Your task to perform on an android device: Show the shopping cart on bestbuy.com. Image 0: 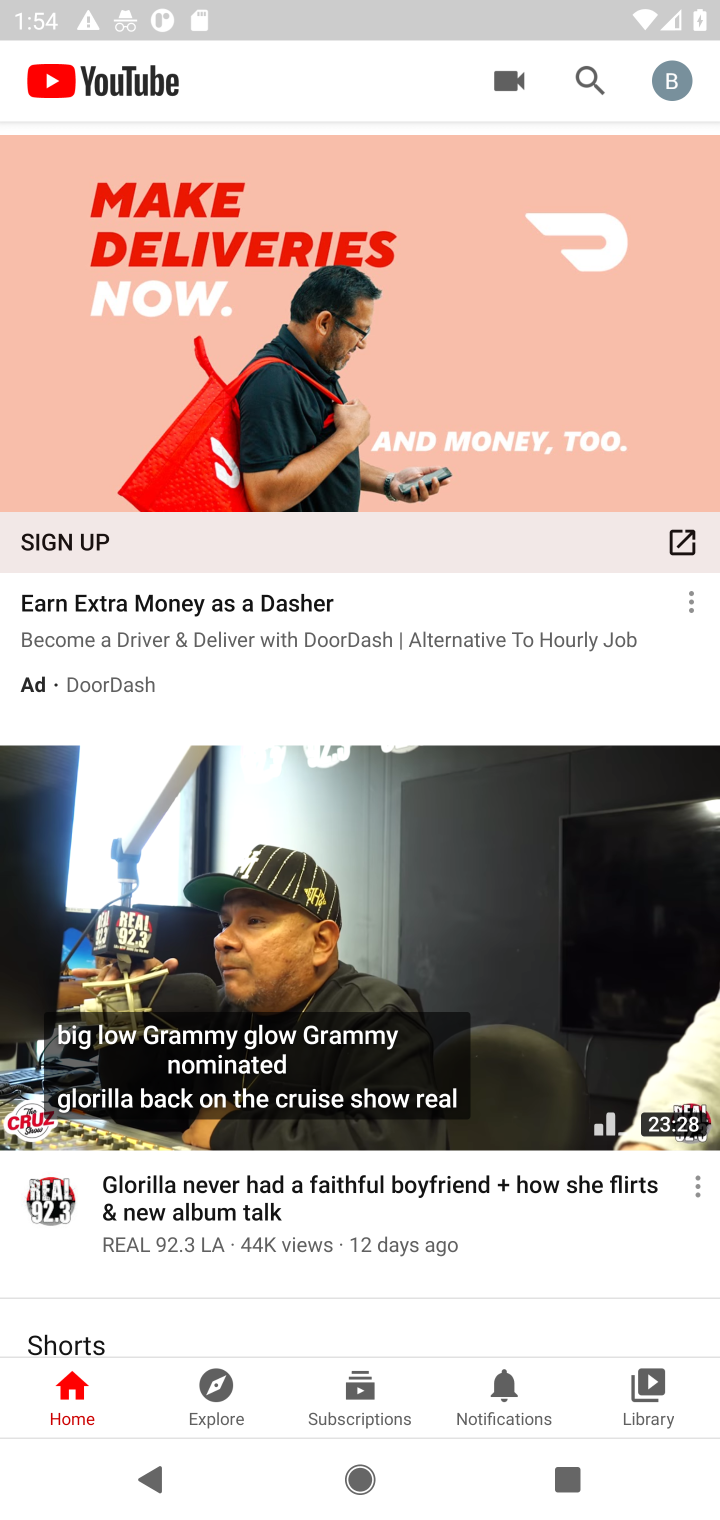
Step 0: press home button
Your task to perform on an android device: Show the shopping cart on bestbuy.com. Image 1: 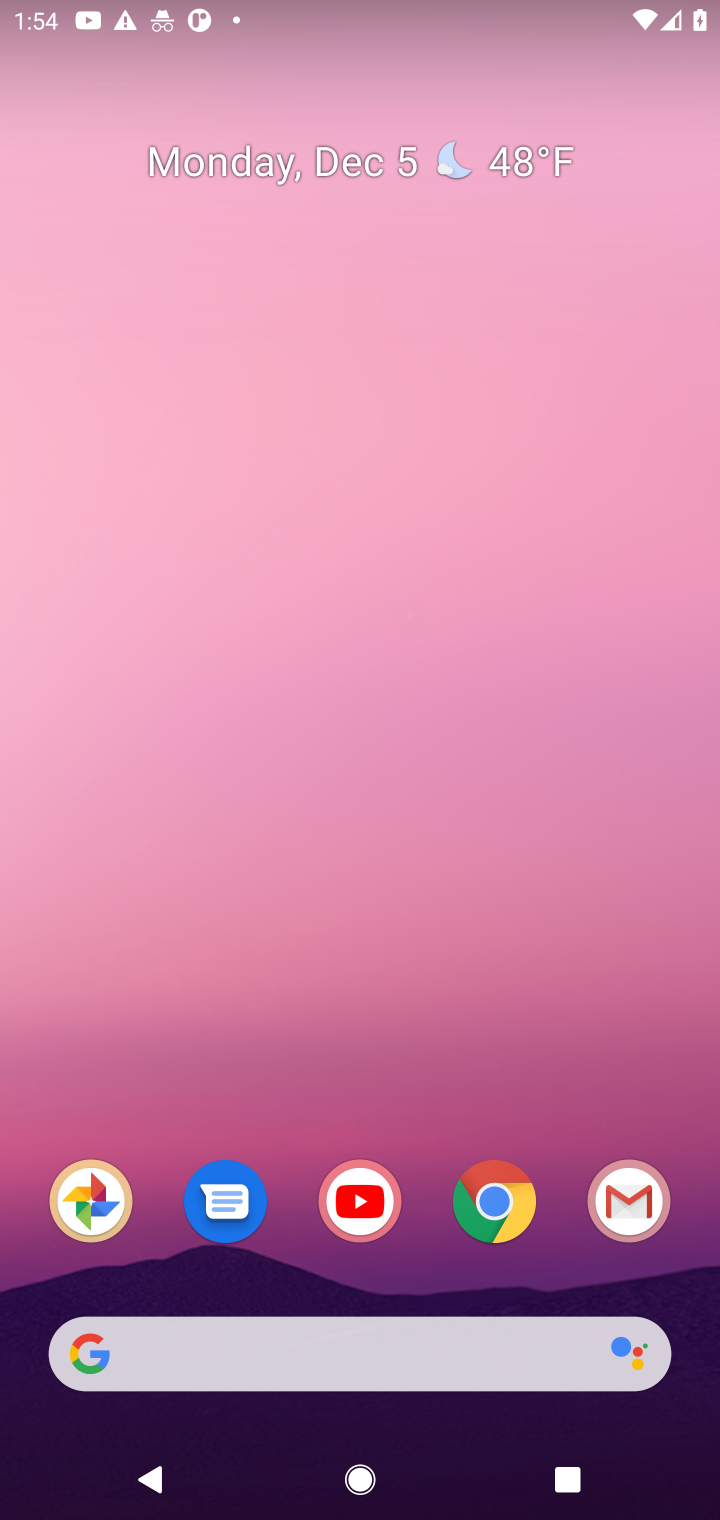
Step 1: click (497, 1194)
Your task to perform on an android device: Show the shopping cart on bestbuy.com. Image 2: 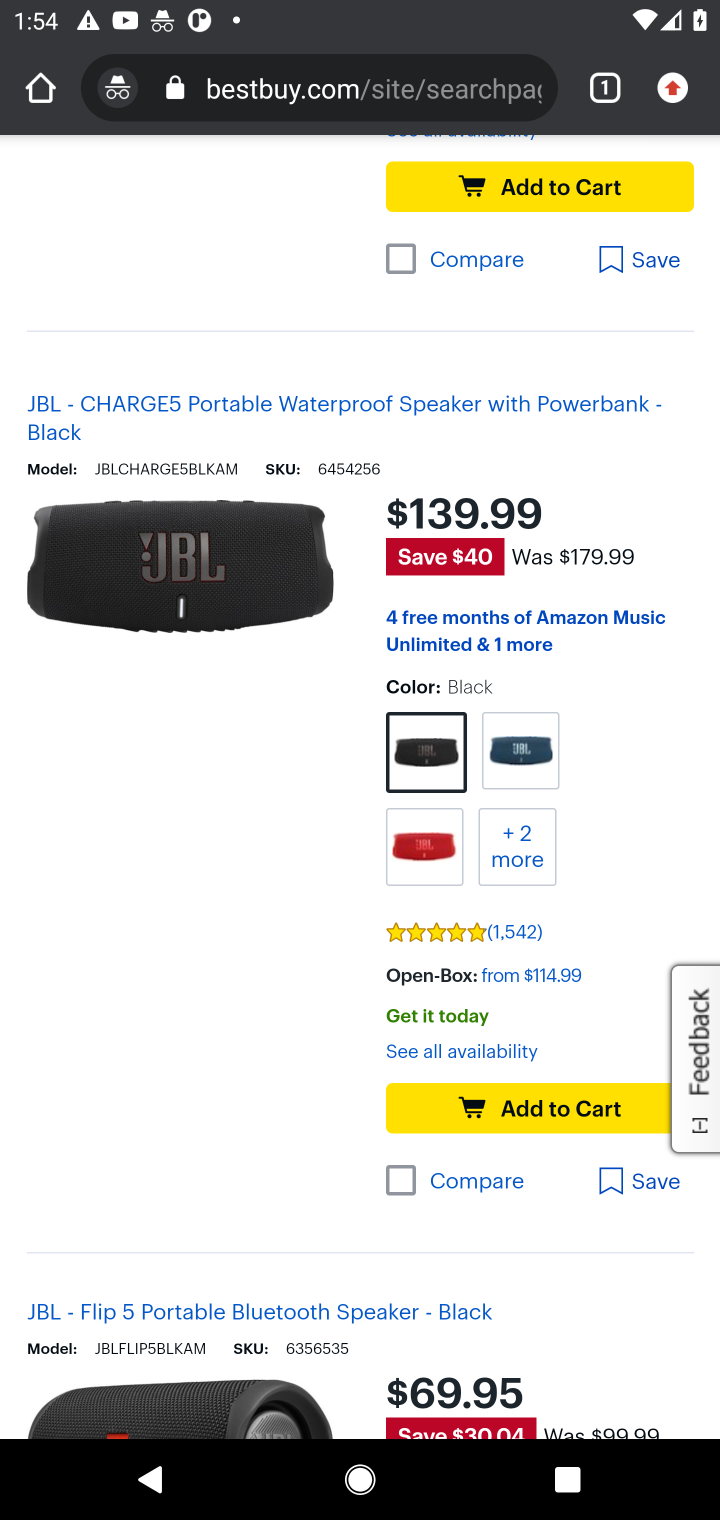
Step 2: drag from (161, 779) to (163, 1091)
Your task to perform on an android device: Show the shopping cart on bestbuy.com. Image 3: 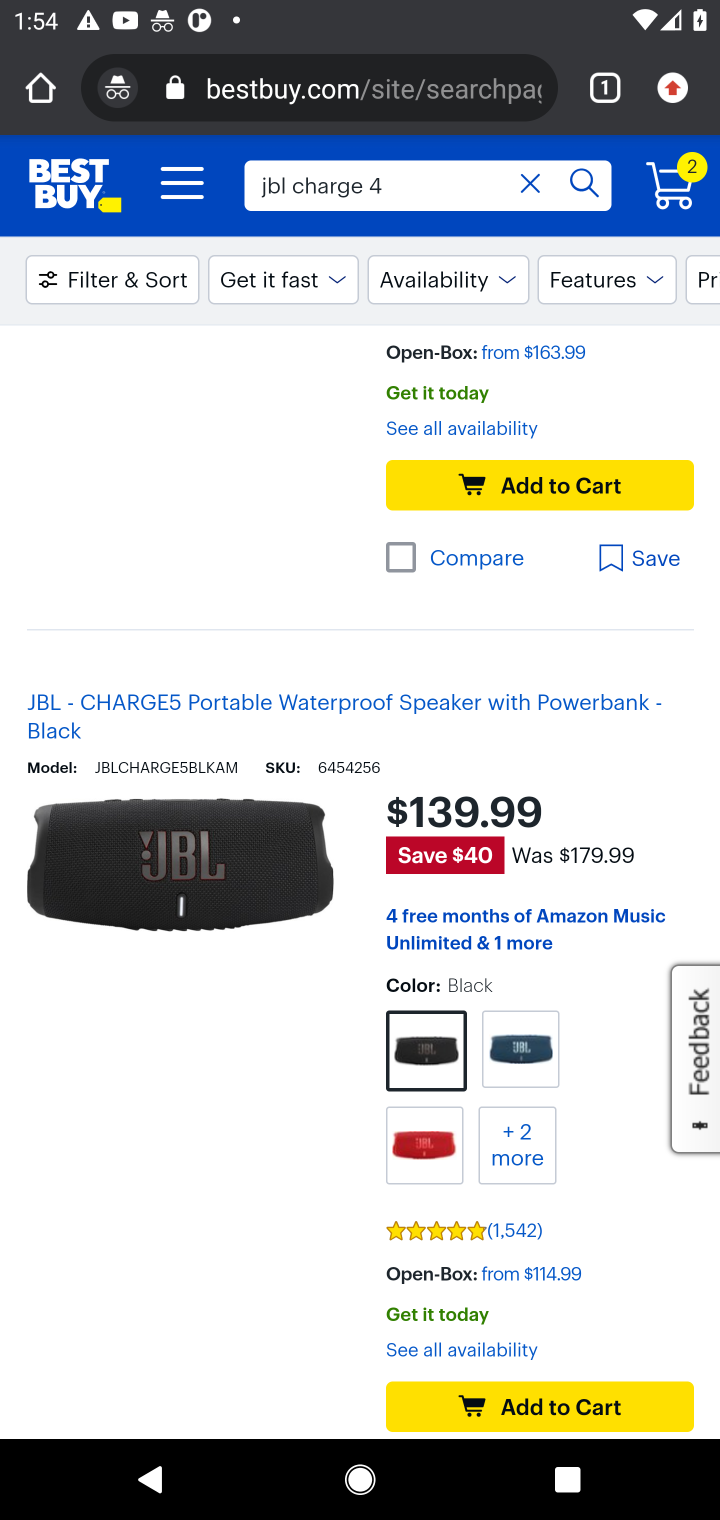
Step 3: click (707, 183)
Your task to perform on an android device: Show the shopping cart on bestbuy.com. Image 4: 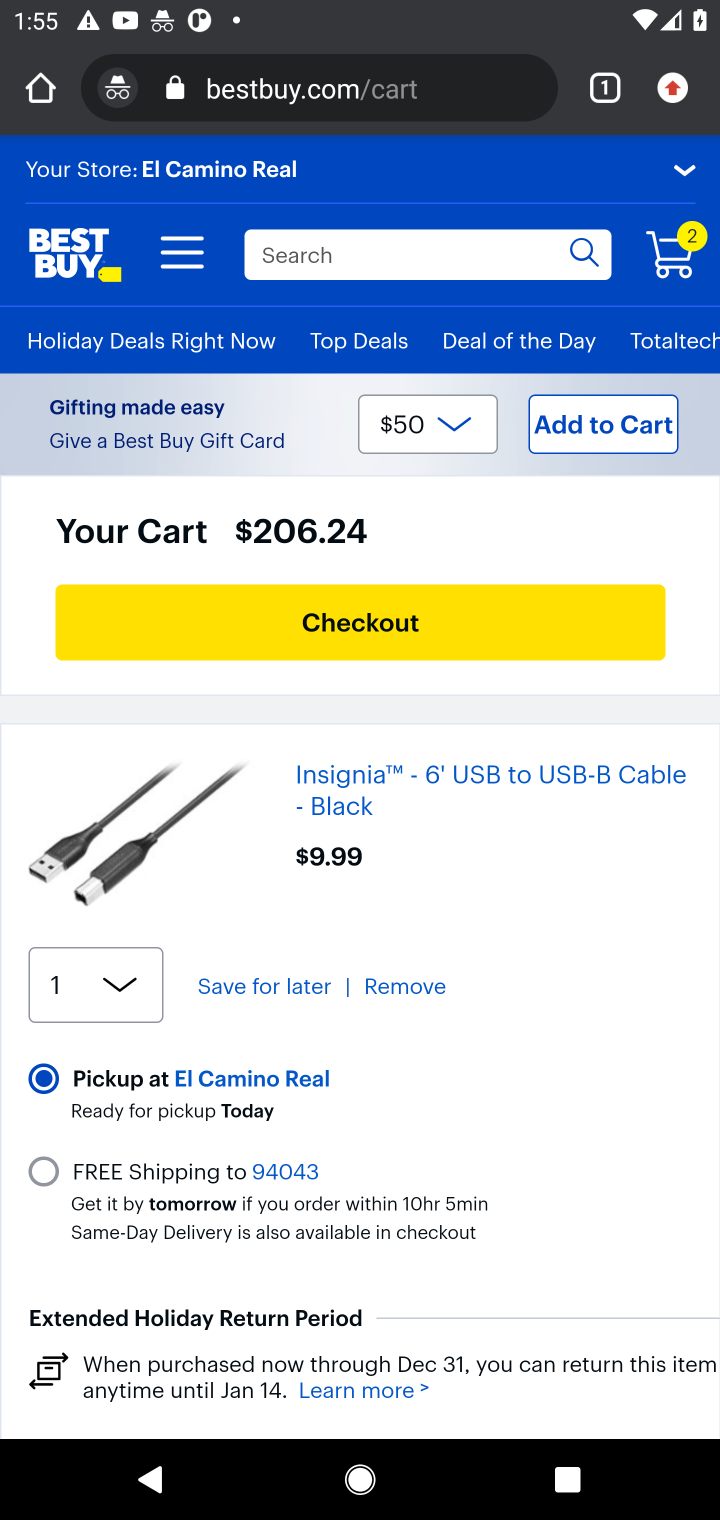
Step 4: click (683, 248)
Your task to perform on an android device: Show the shopping cart on bestbuy.com. Image 5: 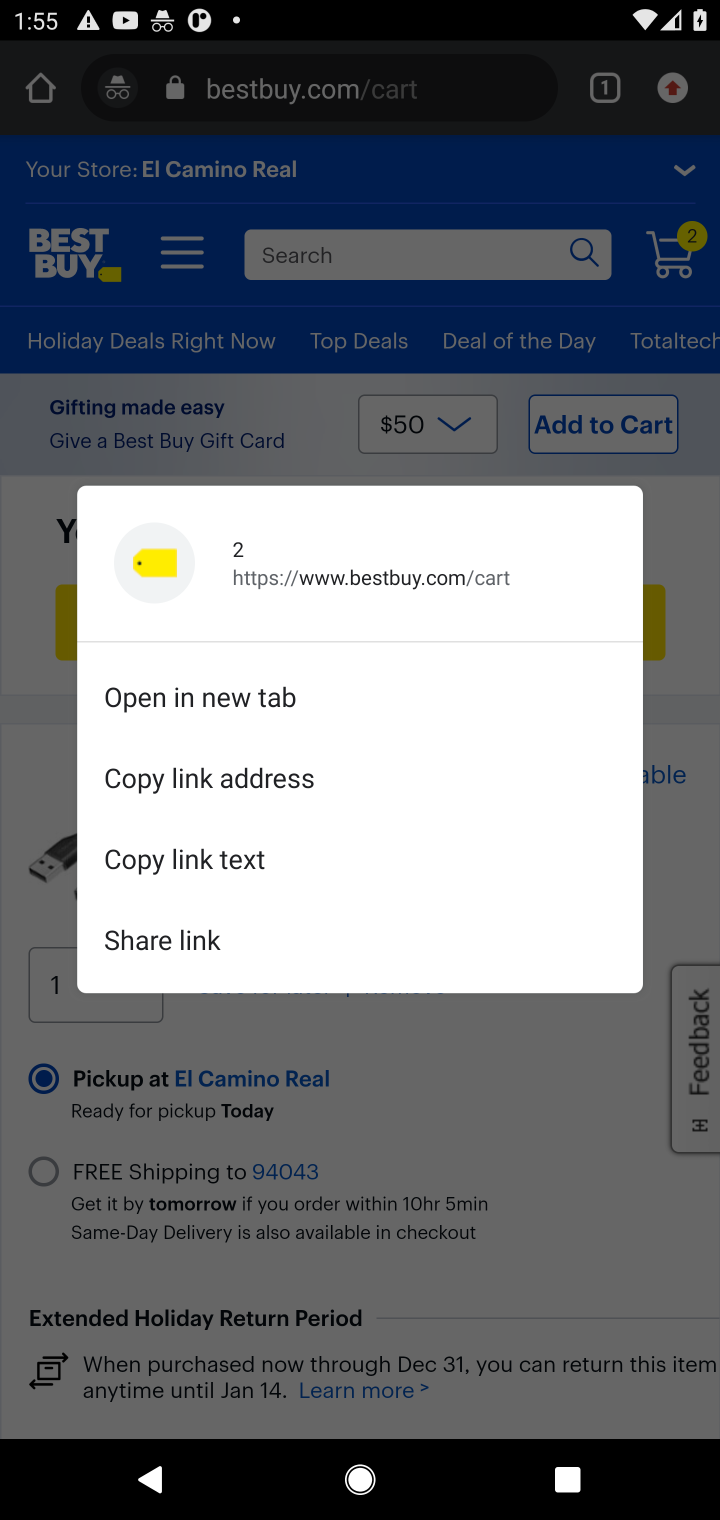
Step 5: click (252, 405)
Your task to perform on an android device: Show the shopping cart on bestbuy.com. Image 6: 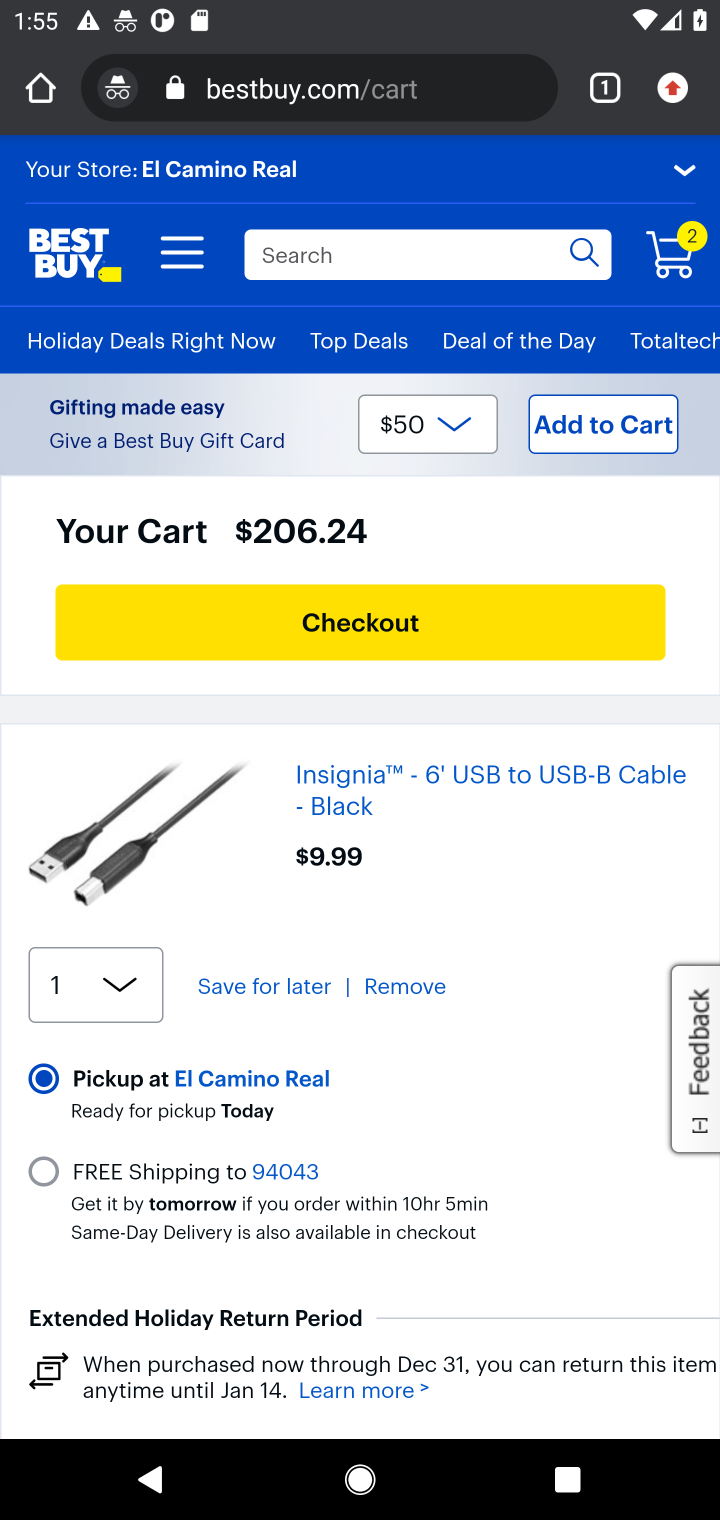
Step 6: task complete